Your task to perform on an android device: Open Amazon Image 0: 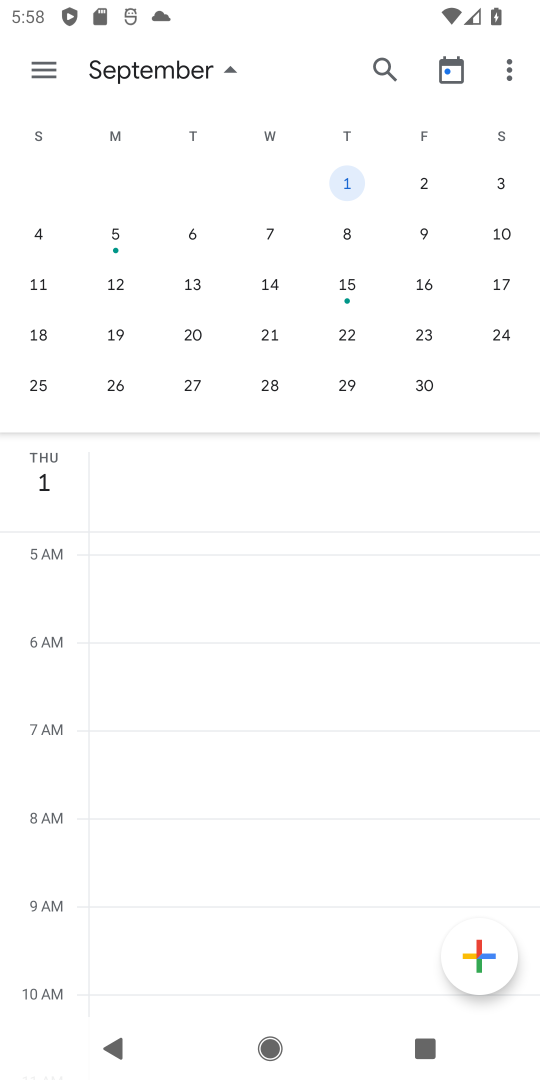
Step 0: press back button
Your task to perform on an android device: Open Amazon Image 1: 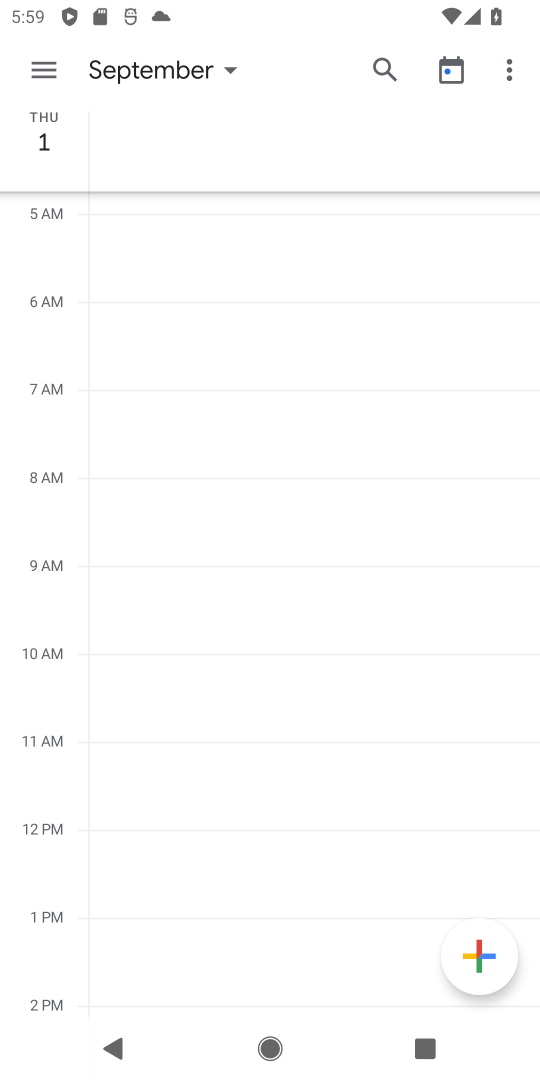
Step 1: press back button
Your task to perform on an android device: Open Amazon Image 2: 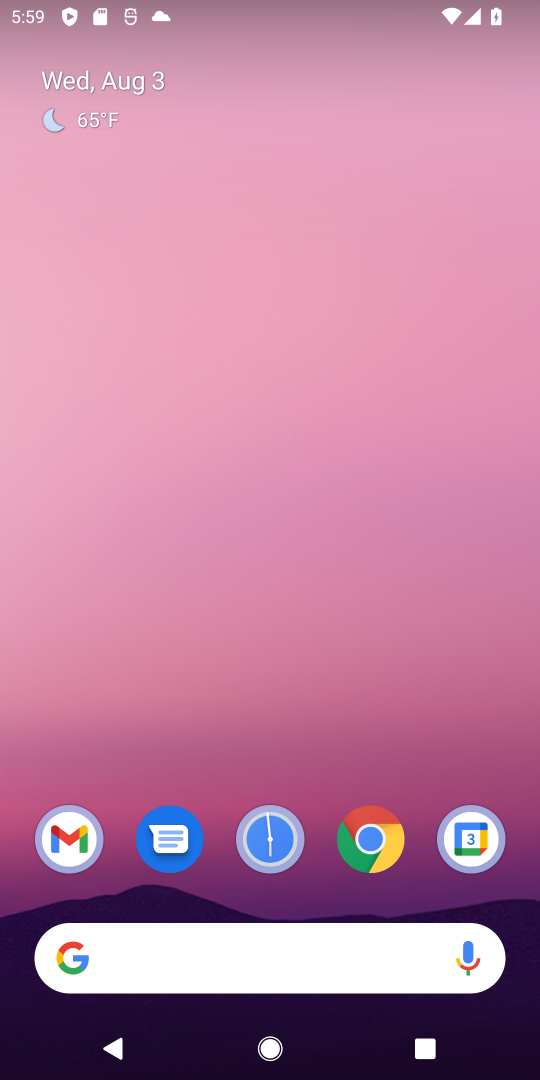
Step 2: click (374, 842)
Your task to perform on an android device: Open Amazon Image 3: 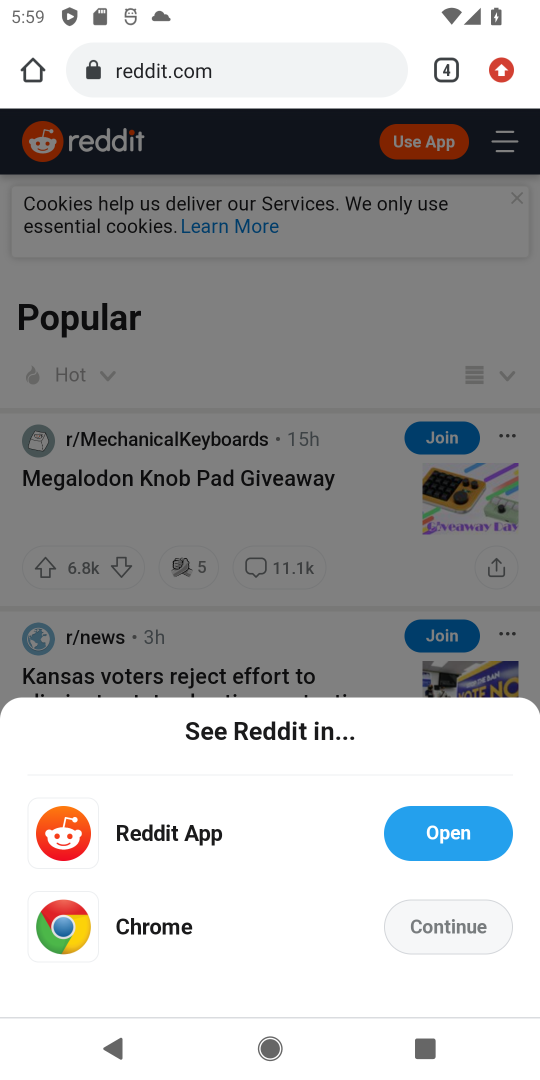
Step 3: click (451, 72)
Your task to perform on an android device: Open Amazon Image 4: 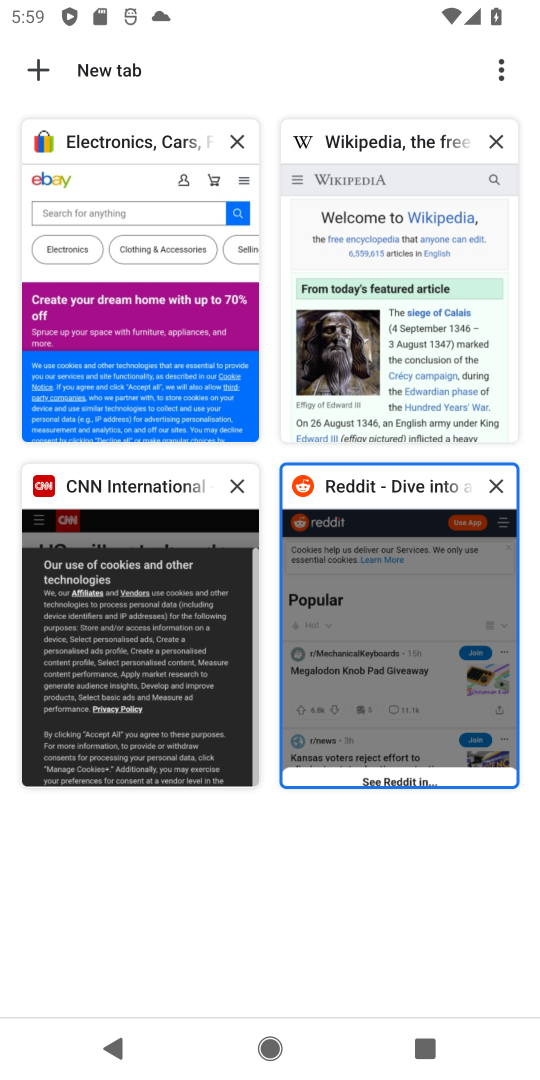
Step 4: click (38, 78)
Your task to perform on an android device: Open Amazon Image 5: 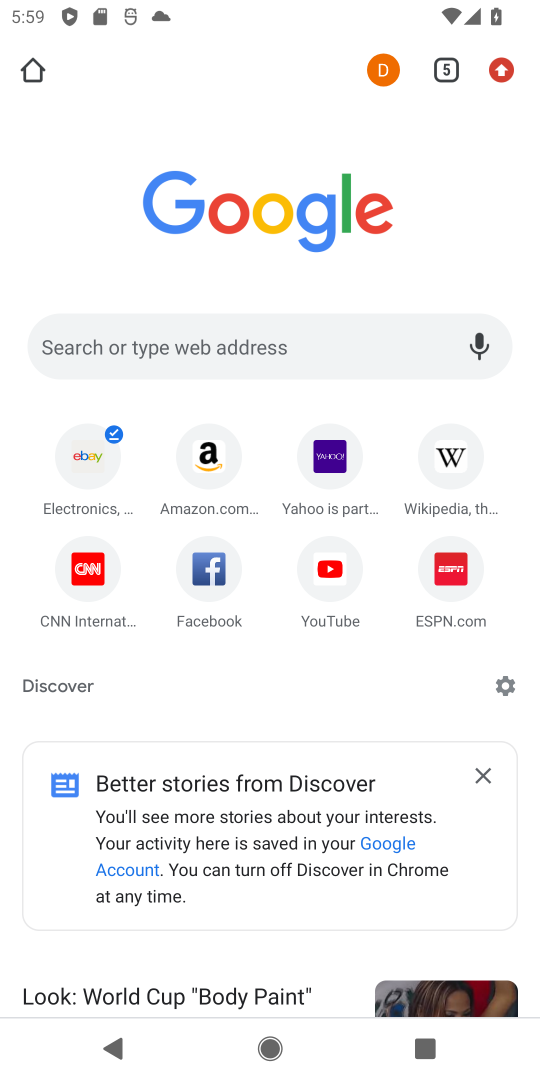
Step 5: click (192, 475)
Your task to perform on an android device: Open Amazon Image 6: 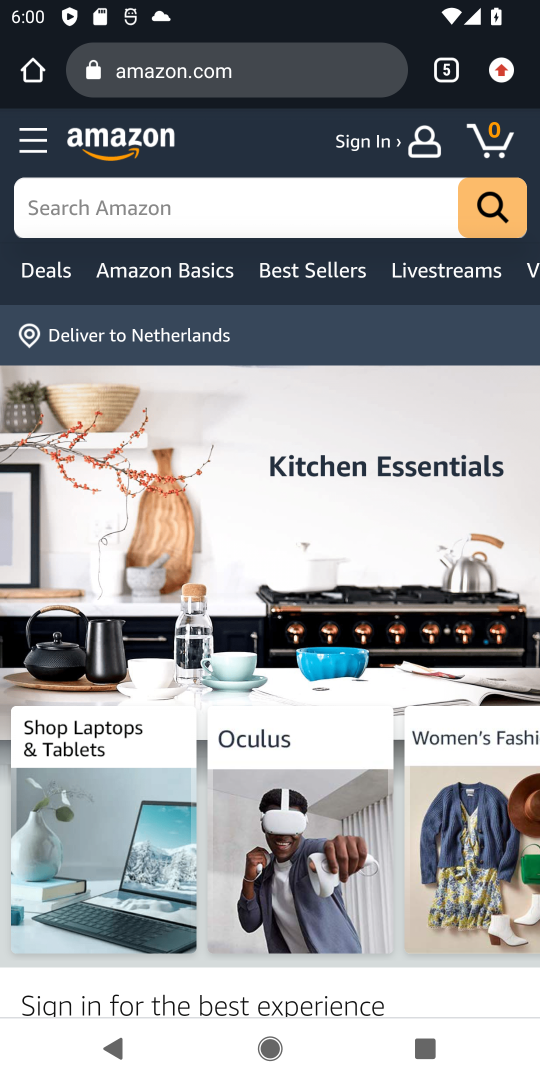
Step 6: task complete